Your task to perform on an android device: turn off smart reply in the gmail app Image 0: 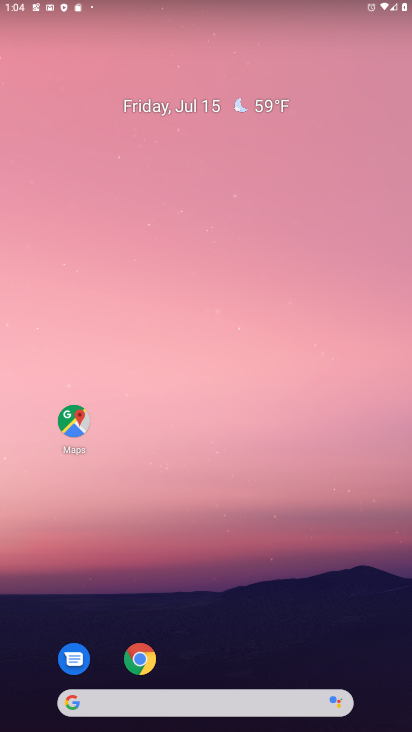
Step 0: drag from (237, 719) to (267, 134)
Your task to perform on an android device: turn off smart reply in the gmail app Image 1: 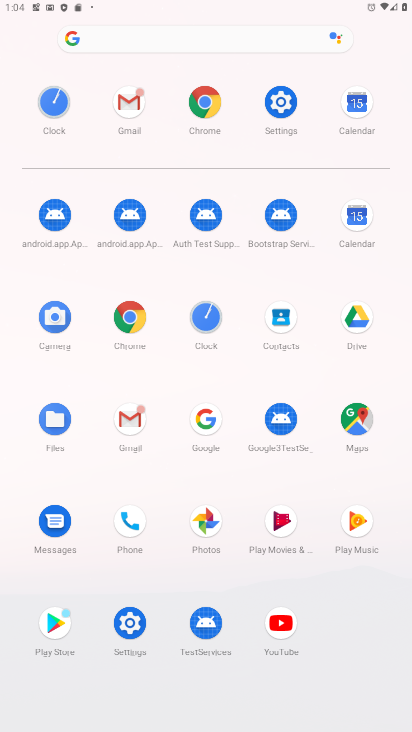
Step 1: click (145, 422)
Your task to perform on an android device: turn off smart reply in the gmail app Image 2: 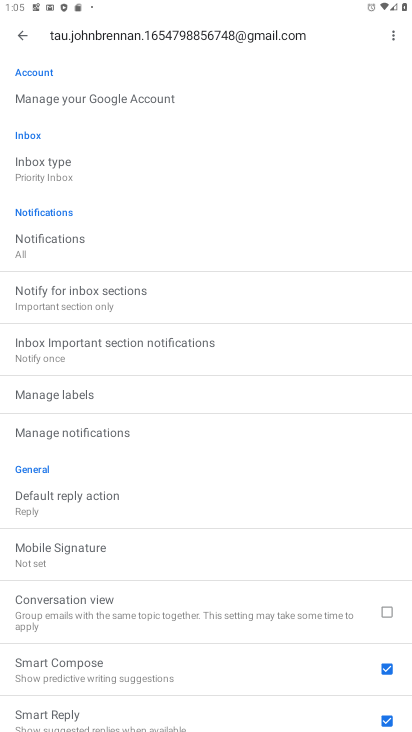
Step 2: click (388, 718)
Your task to perform on an android device: turn off smart reply in the gmail app Image 3: 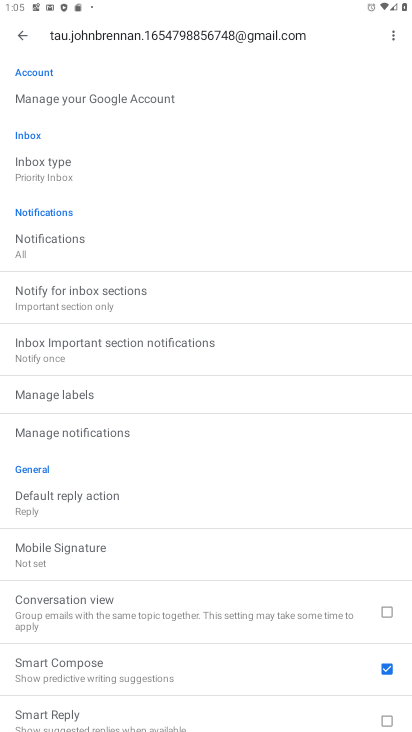
Step 3: task complete